Your task to perform on an android device: toggle data saver in the chrome app Image 0: 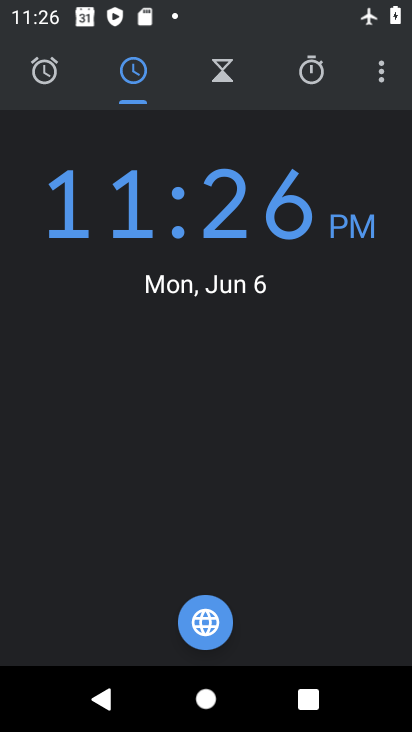
Step 0: press home button
Your task to perform on an android device: toggle data saver in the chrome app Image 1: 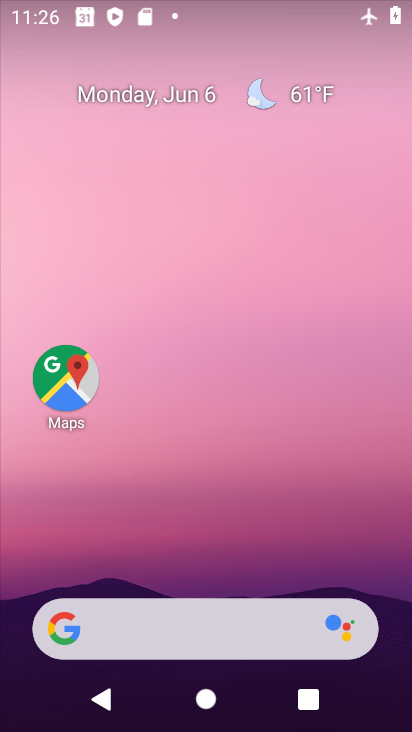
Step 1: drag from (193, 552) to (222, 162)
Your task to perform on an android device: toggle data saver in the chrome app Image 2: 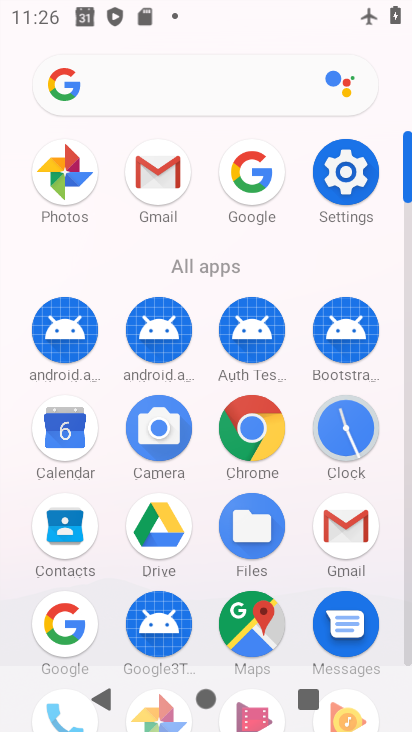
Step 2: click (252, 429)
Your task to perform on an android device: toggle data saver in the chrome app Image 3: 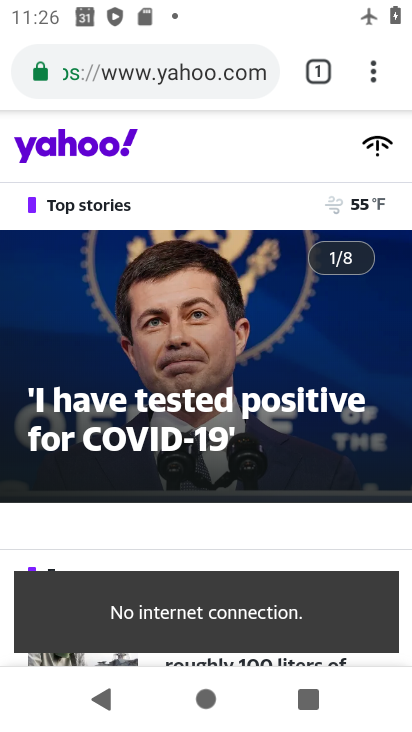
Step 3: click (360, 72)
Your task to perform on an android device: toggle data saver in the chrome app Image 4: 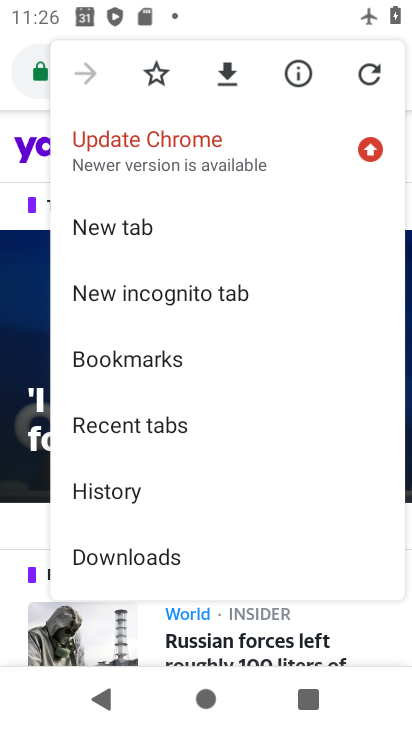
Step 4: drag from (243, 354) to (257, 197)
Your task to perform on an android device: toggle data saver in the chrome app Image 5: 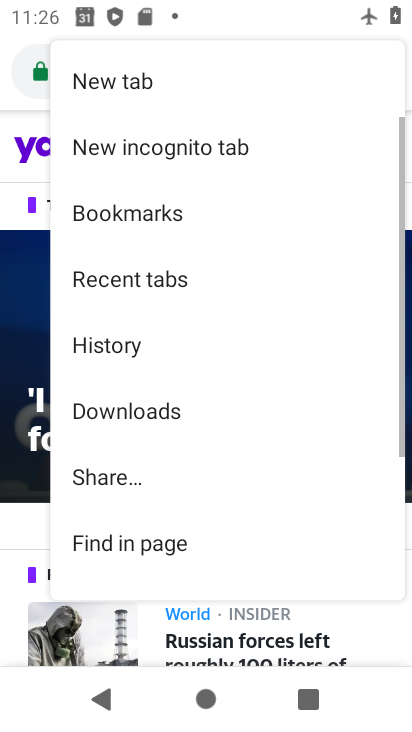
Step 5: drag from (257, 502) to (272, 252)
Your task to perform on an android device: toggle data saver in the chrome app Image 6: 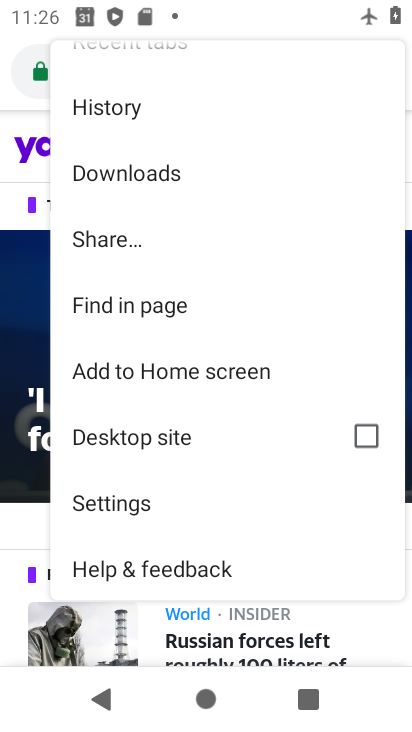
Step 6: click (144, 505)
Your task to perform on an android device: toggle data saver in the chrome app Image 7: 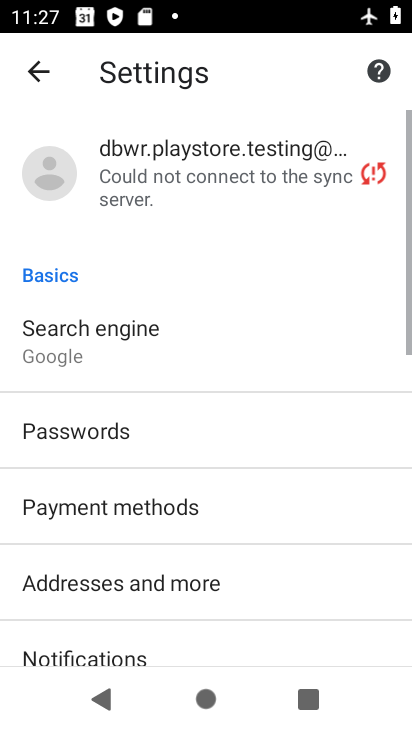
Step 7: drag from (251, 601) to (264, 145)
Your task to perform on an android device: toggle data saver in the chrome app Image 8: 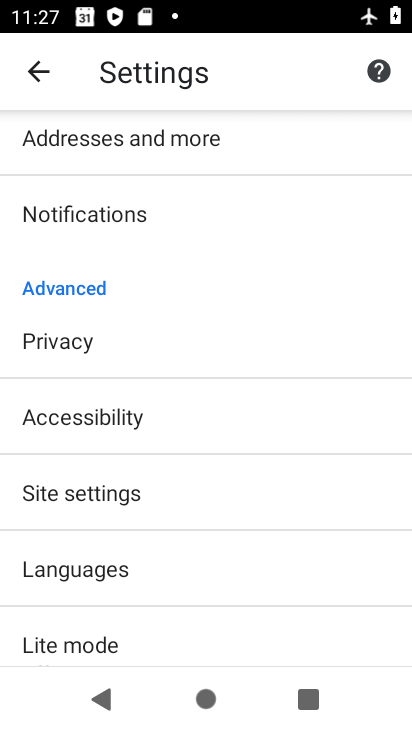
Step 8: click (114, 635)
Your task to perform on an android device: toggle data saver in the chrome app Image 9: 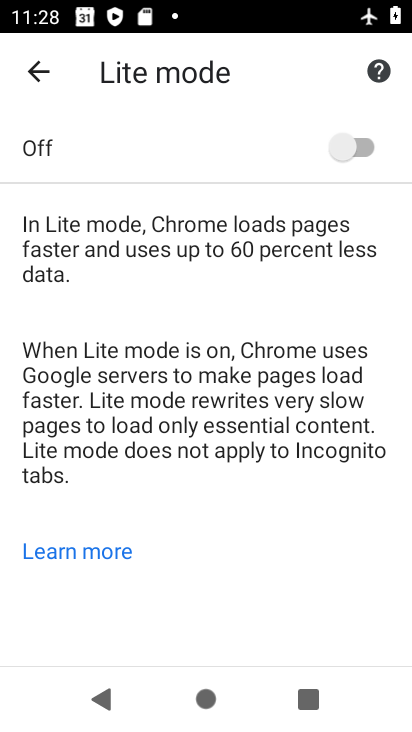
Step 9: task complete